Your task to perform on an android device: What is the news today? Image 0: 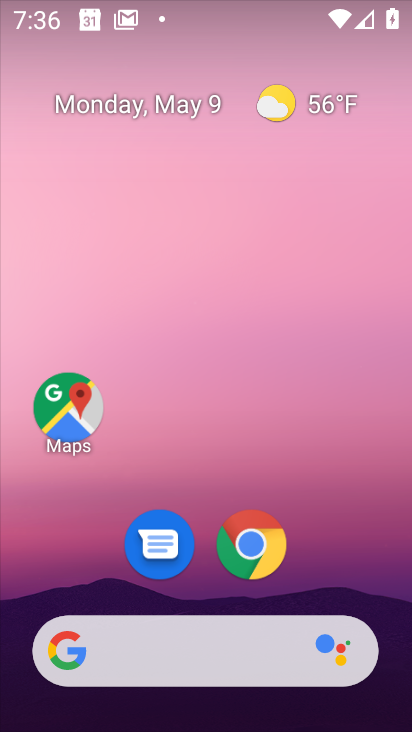
Step 0: drag from (322, 556) to (288, 0)
Your task to perform on an android device: What is the news today? Image 1: 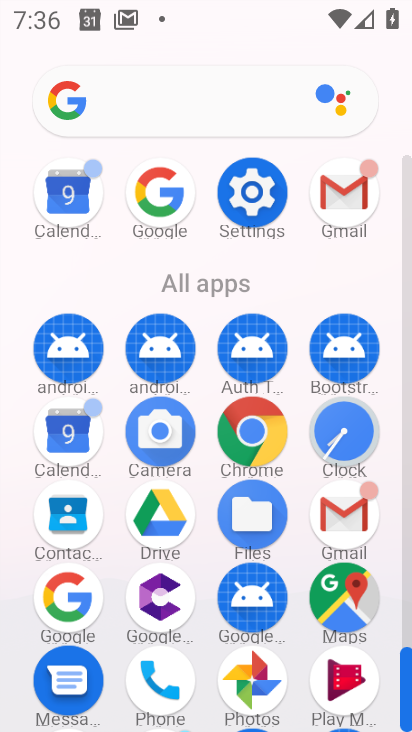
Step 1: click (62, 594)
Your task to perform on an android device: What is the news today? Image 2: 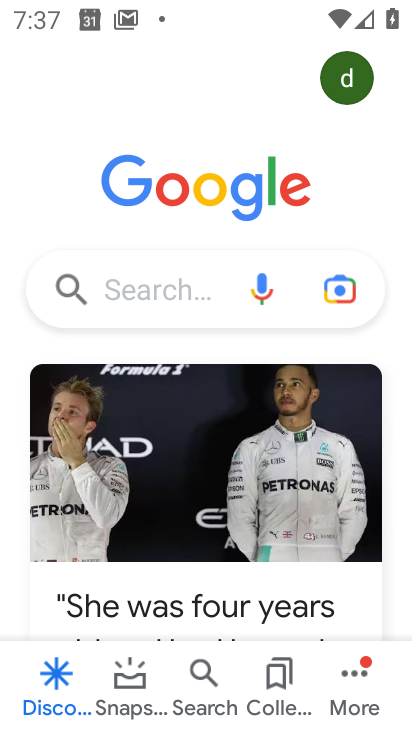
Step 2: drag from (189, 457) to (247, 255)
Your task to perform on an android device: What is the news today? Image 3: 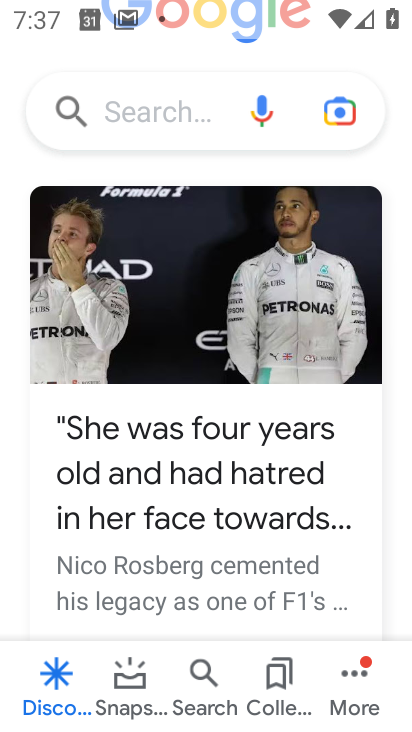
Step 3: drag from (199, 361) to (219, 269)
Your task to perform on an android device: What is the news today? Image 4: 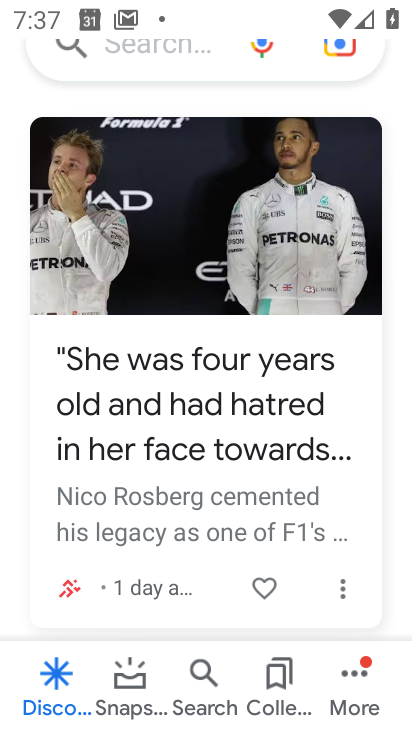
Step 4: click (161, 64)
Your task to perform on an android device: What is the news today? Image 5: 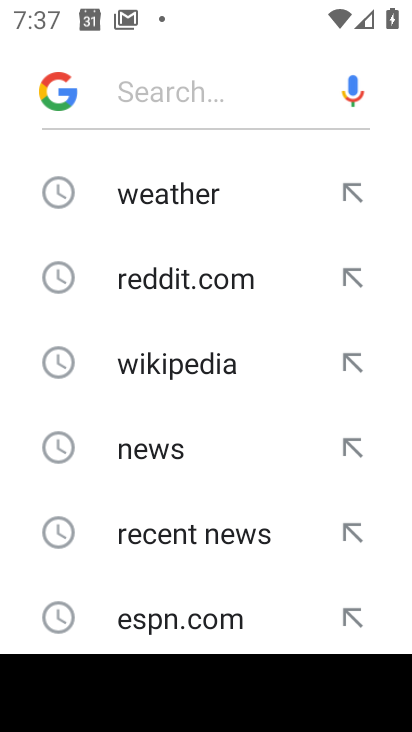
Step 5: type "news today"
Your task to perform on an android device: What is the news today? Image 6: 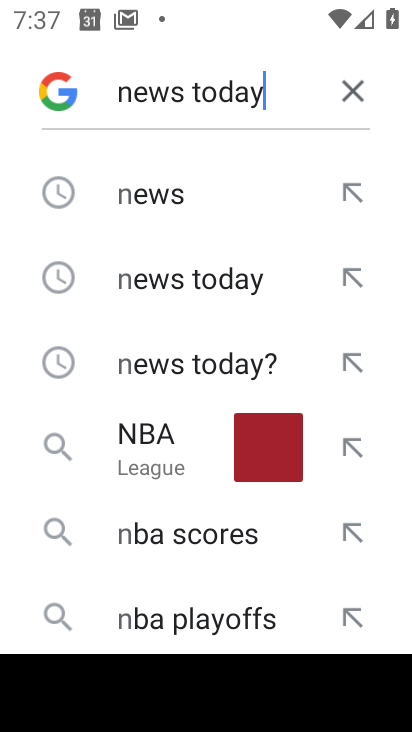
Step 6: type ""
Your task to perform on an android device: What is the news today? Image 7: 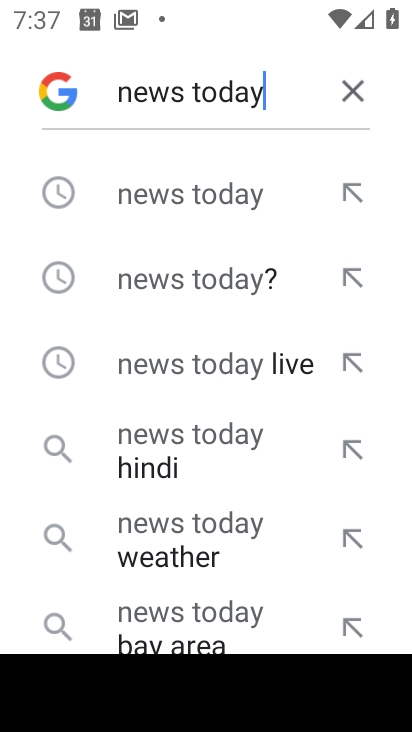
Step 7: click (150, 281)
Your task to perform on an android device: What is the news today? Image 8: 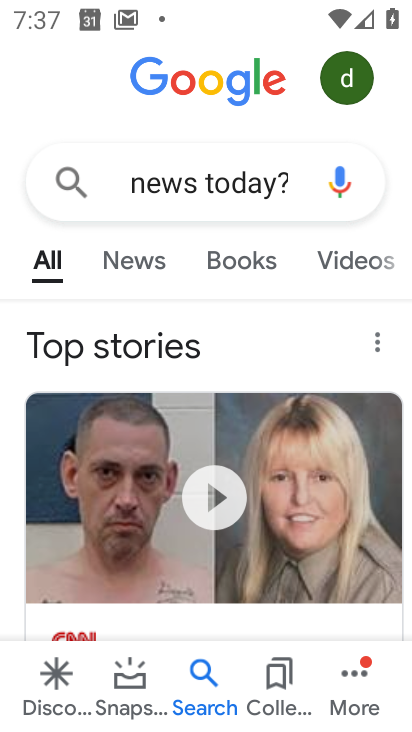
Step 8: task complete